Your task to perform on an android device: open a new tab in the chrome app Image 0: 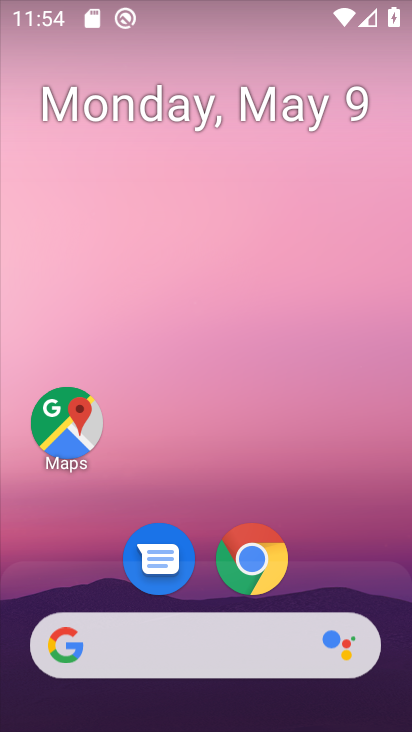
Step 0: click (237, 564)
Your task to perform on an android device: open a new tab in the chrome app Image 1: 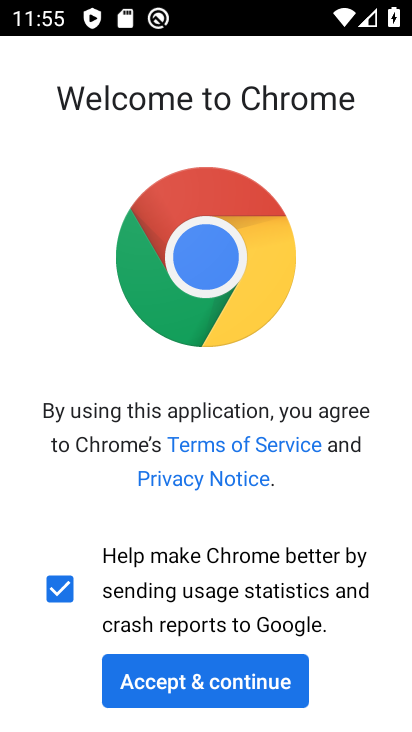
Step 1: click (275, 705)
Your task to perform on an android device: open a new tab in the chrome app Image 2: 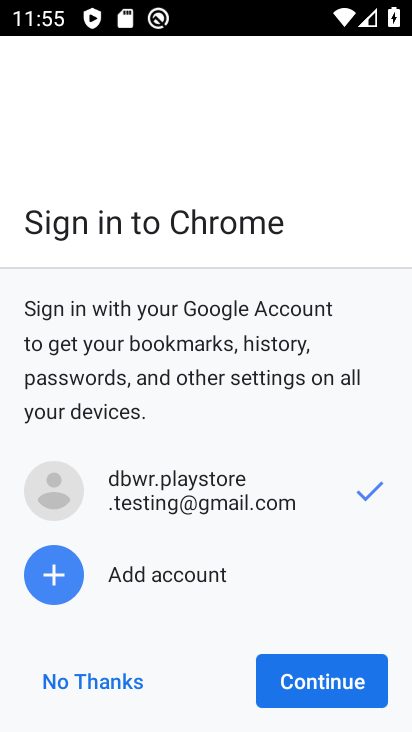
Step 2: click (303, 689)
Your task to perform on an android device: open a new tab in the chrome app Image 3: 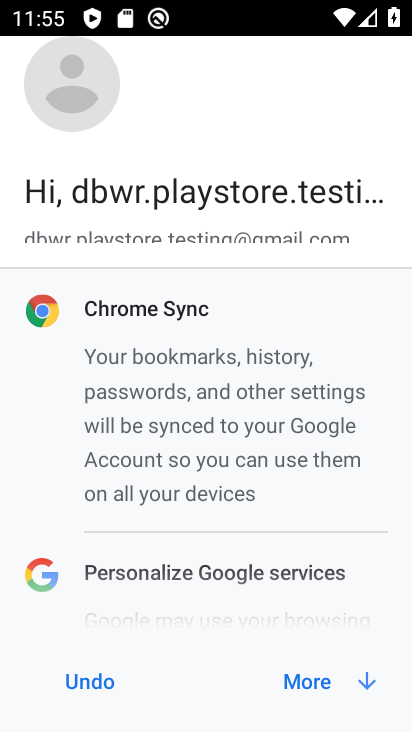
Step 3: click (342, 699)
Your task to perform on an android device: open a new tab in the chrome app Image 4: 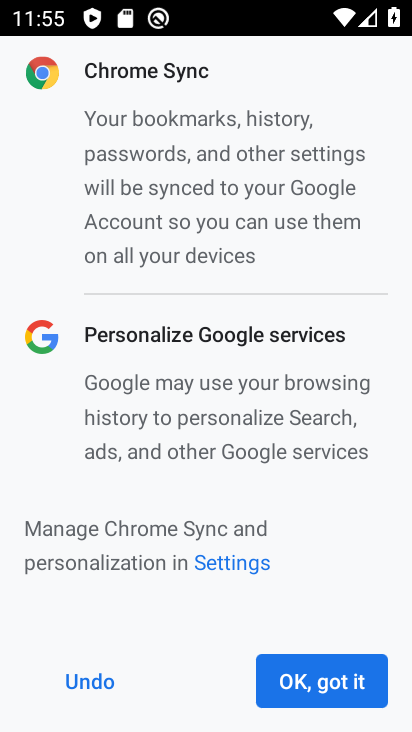
Step 4: click (337, 698)
Your task to perform on an android device: open a new tab in the chrome app Image 5: 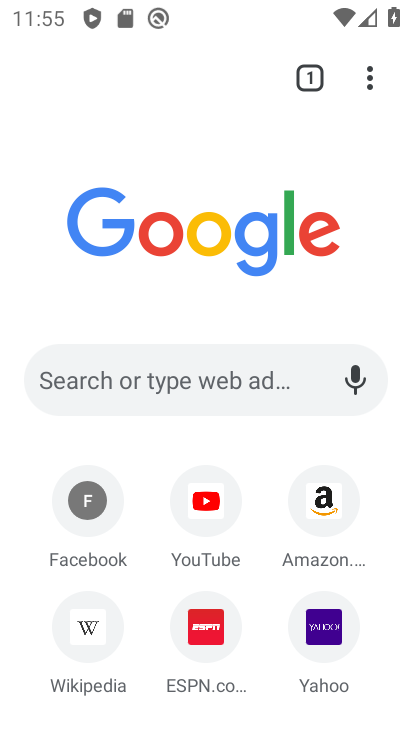
Step 5: click (306, 83)
Your task to perform on an android device: open a new tab in the chrome app Image 6: 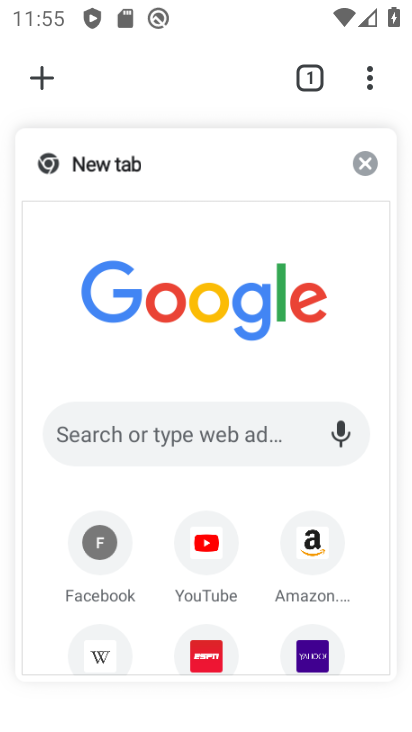
Step 6: click (52, 71)
Your task to perform on an android device: open a new tab in the chrome app Image 7: 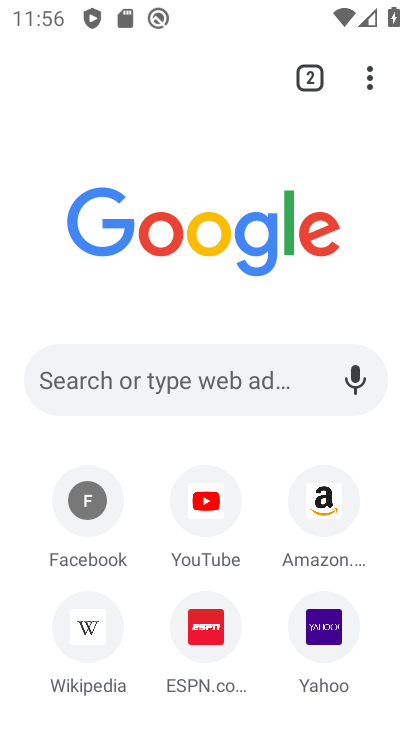
Step 7: click (314, 85)
Your task to perform on an android device: open a new tab in the chrome app Image 8: 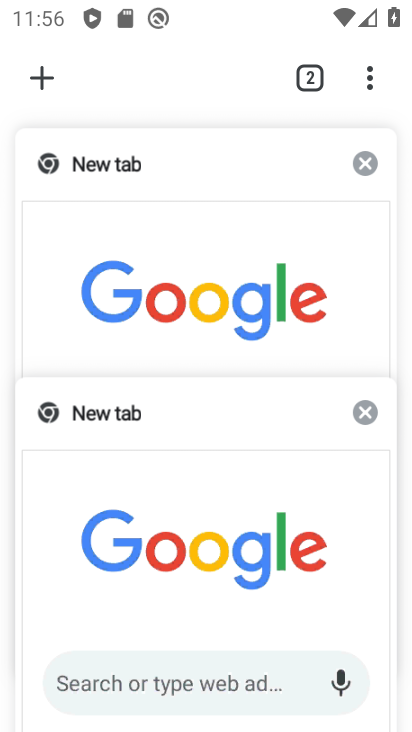
Step 8: click (49, 86)
Your task to perform on an android device: open a new tab in the chrome app Image 9: 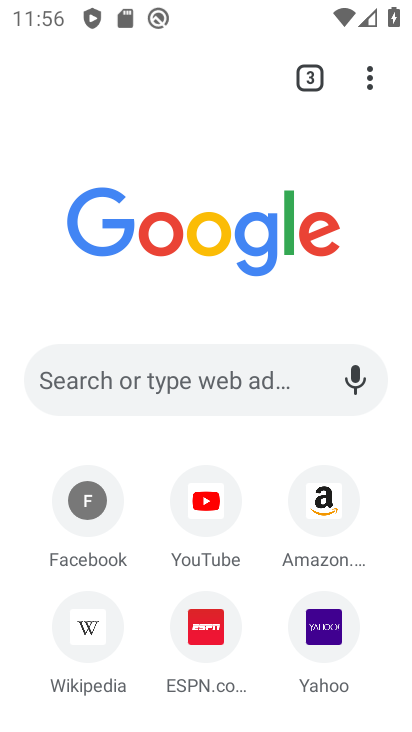
Step 9: task complete